Your task to perform on an android device: turn on bluetooth scan Image 0: 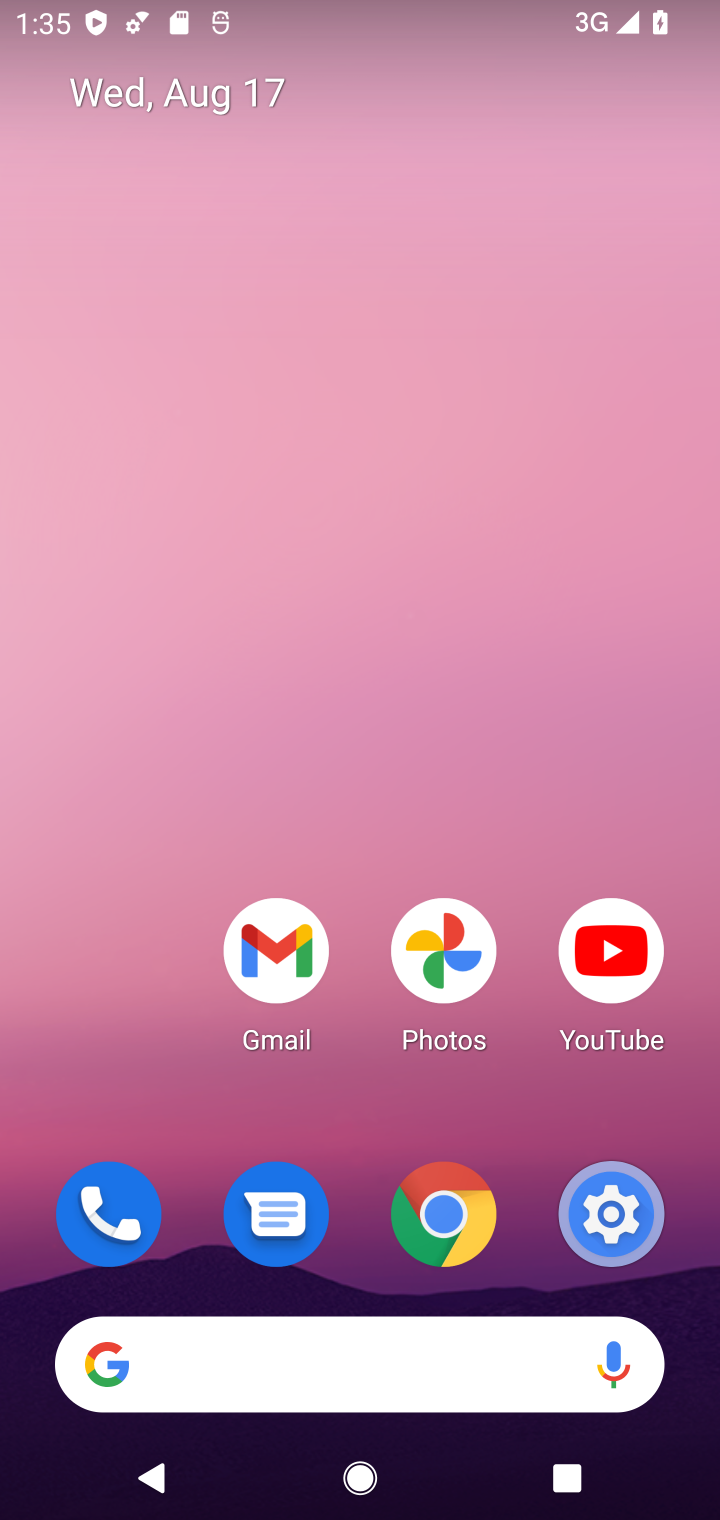
Step 0: click (617, 1215)
Your task to perform on an android device: turn on bluetooth scan Image 1: 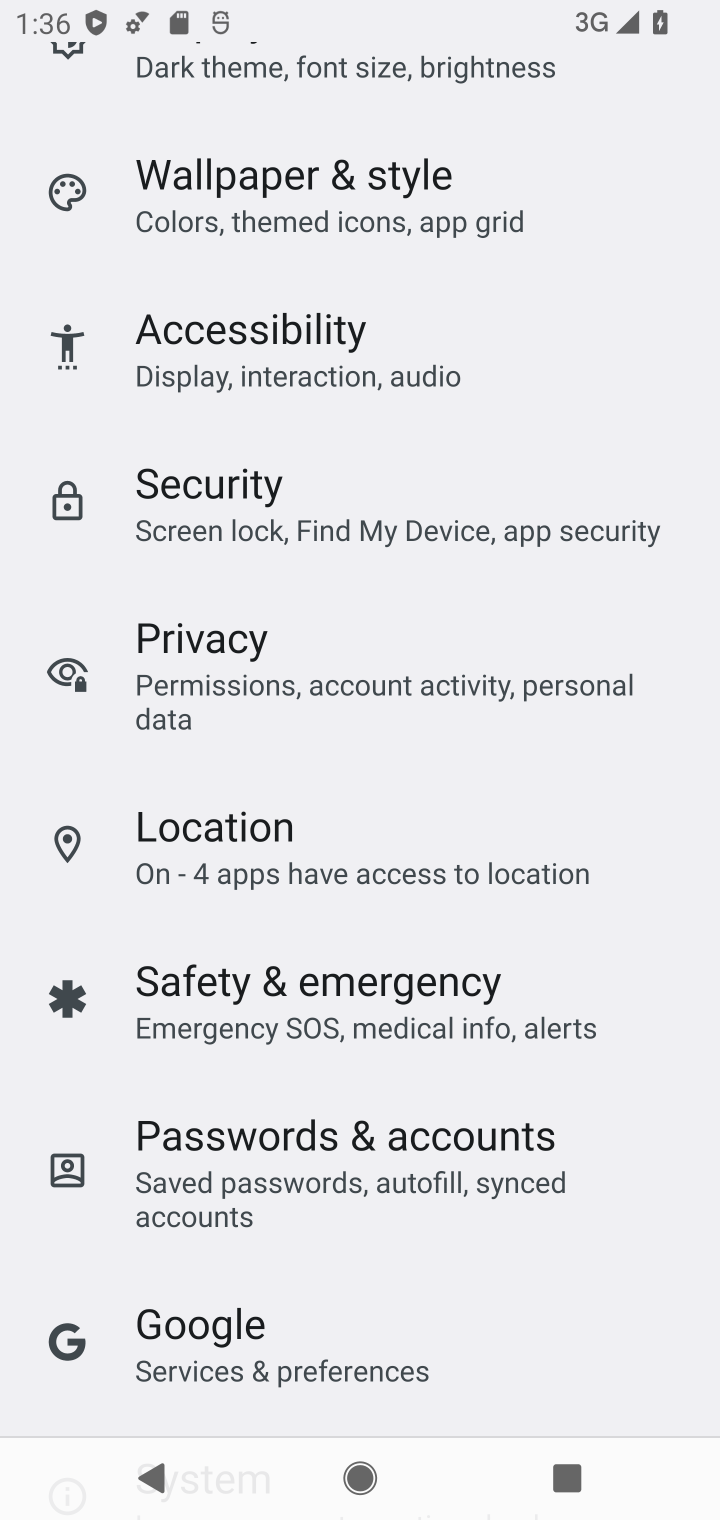
Step 1: click (195, 818)
Your task to perform on an android device: turn on bluetooth scan Image 2: 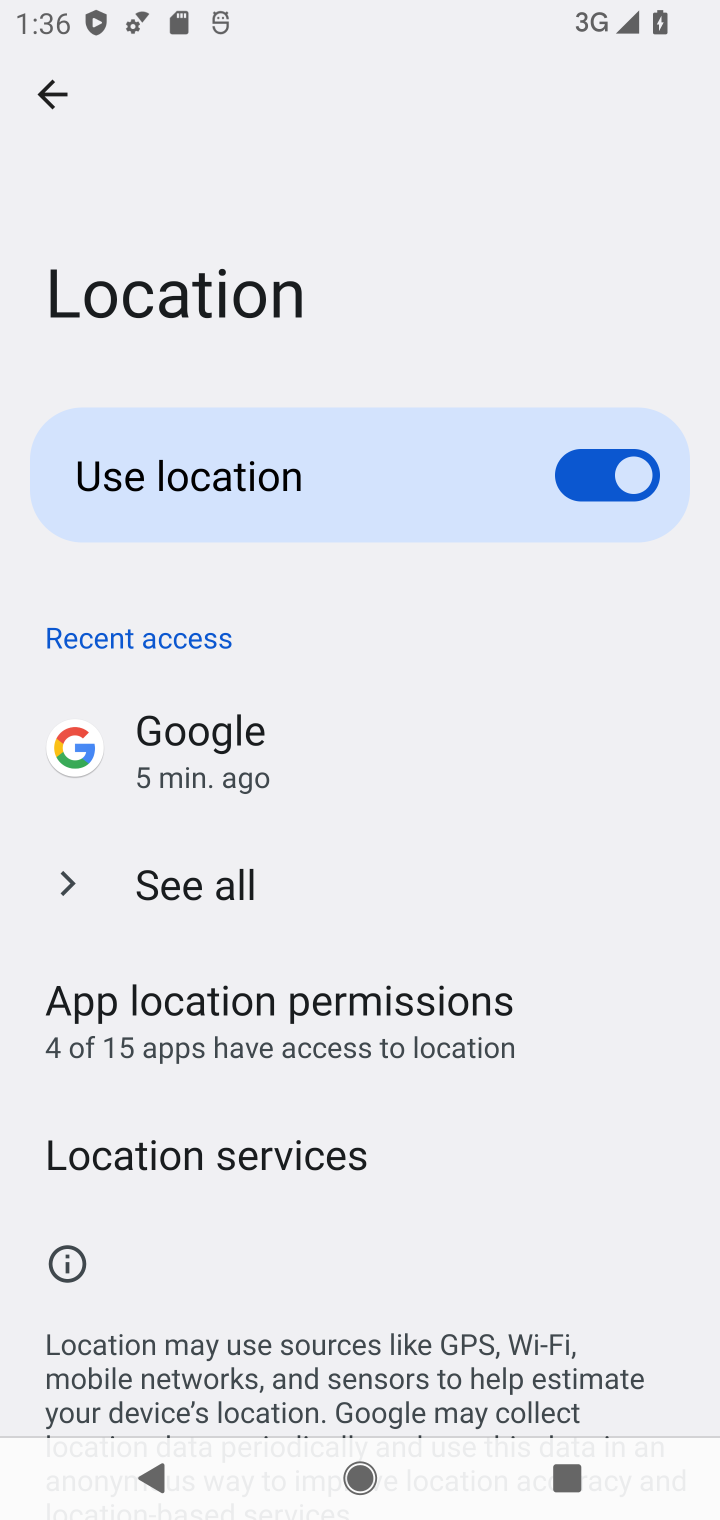
Step 2: click (180, 1162)
Your task to perform on an android device: turn on bluetooth scan Image 3: 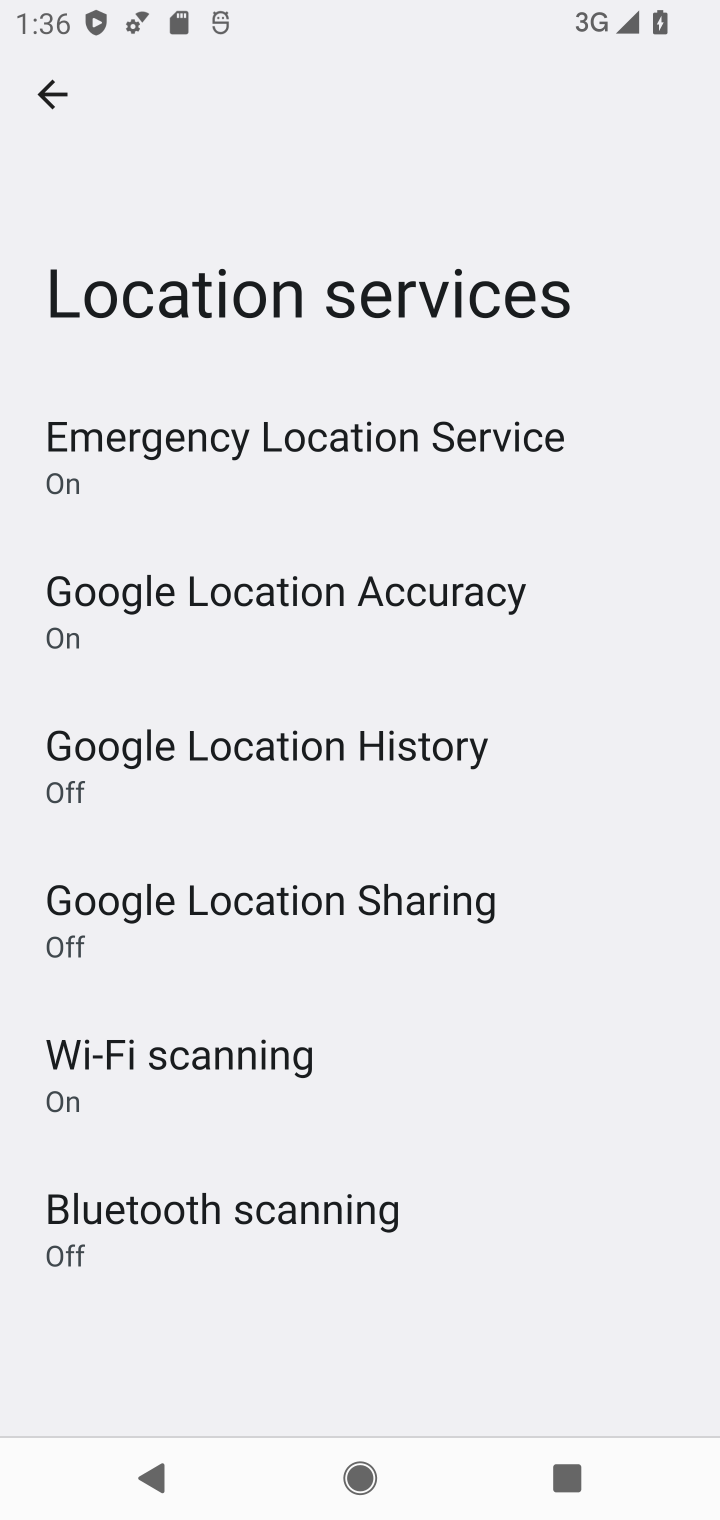
Step 3: click (159, 1208)
Your task to perform on an android device: turn on bluetooth scan Image 4: 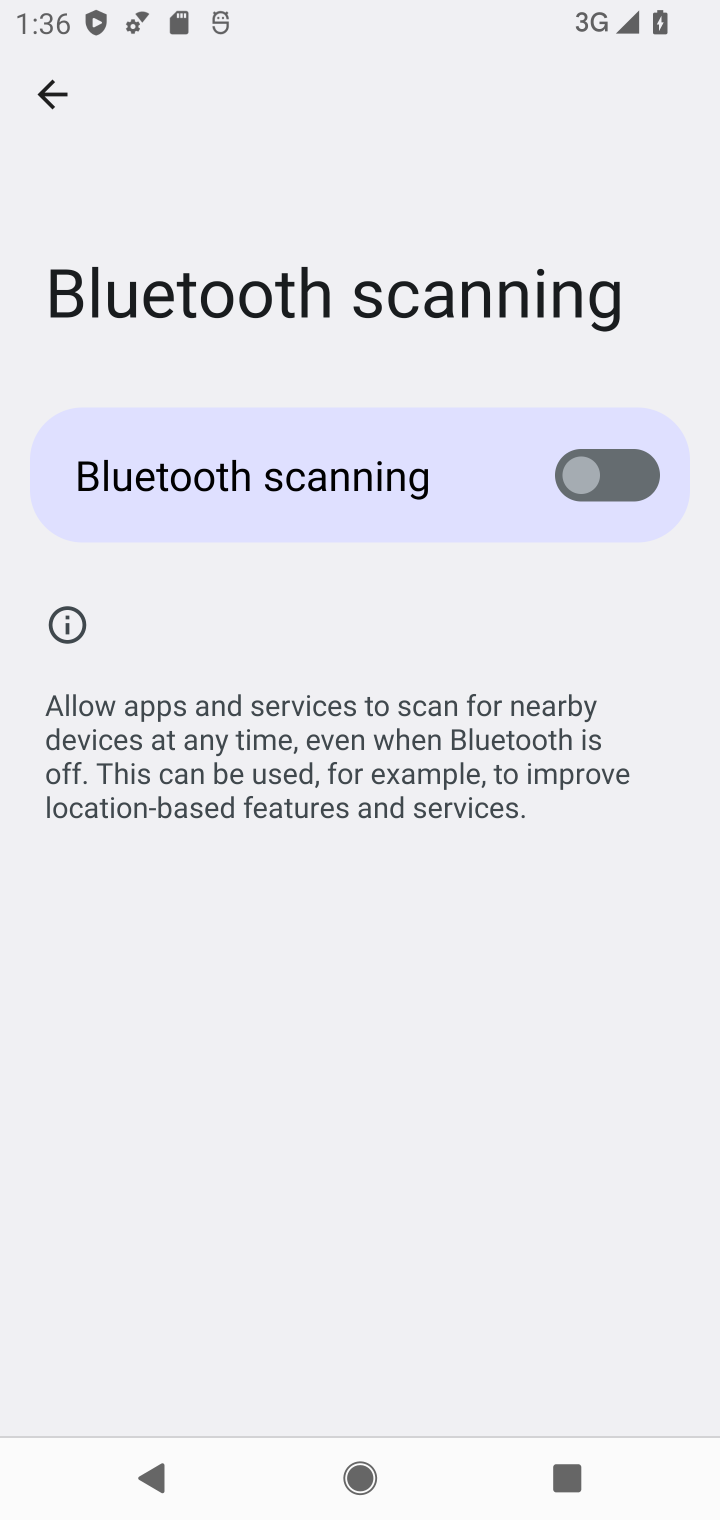
Step 4: click (590, 454)
Your task to perform on an android device: turn on bluetooth scan Image 5: 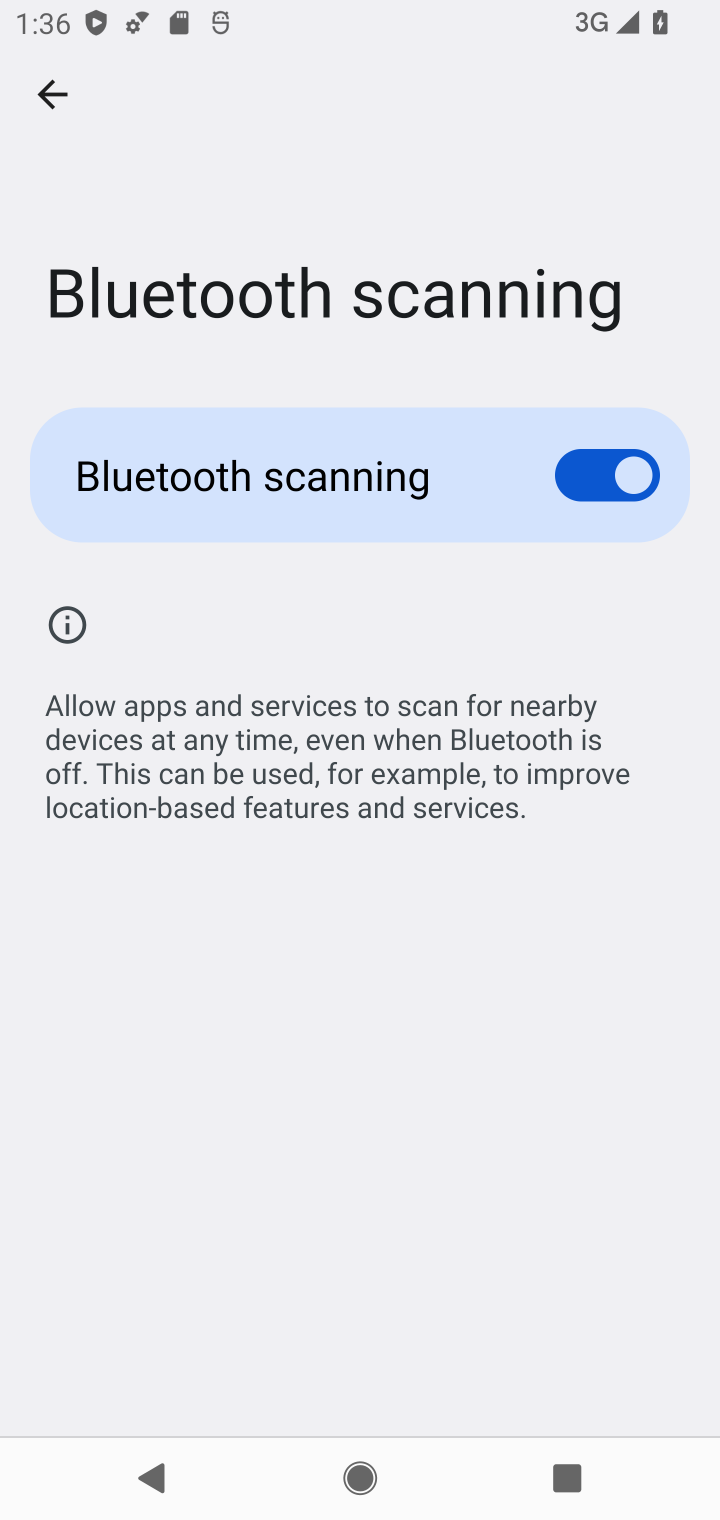
Step 5: task complete